Your task to perform on an android device: What does the iPhone 8 look like on eBay? Image 0: 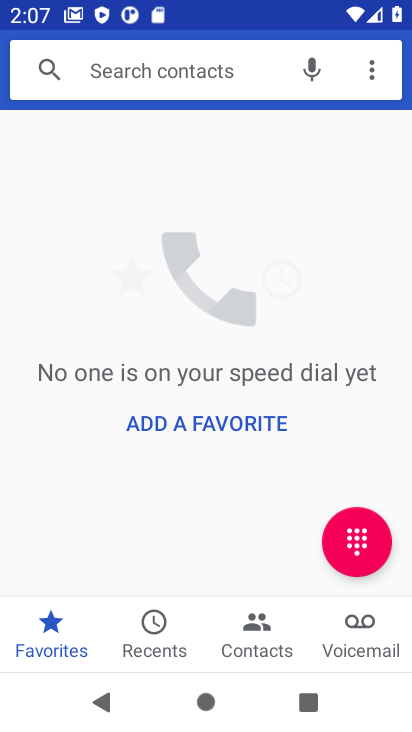
Step 0: press home button
Your task to perform on an android device: What does the iPhone 8 look like on eBay? Image 1: 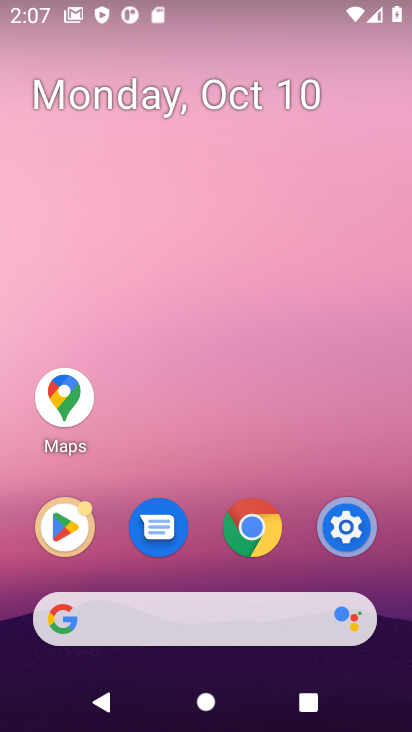
Step 1: click (228, 615)
Your task to perform on an android device: What does the iPhone 8 look like on eBay? Image 2: 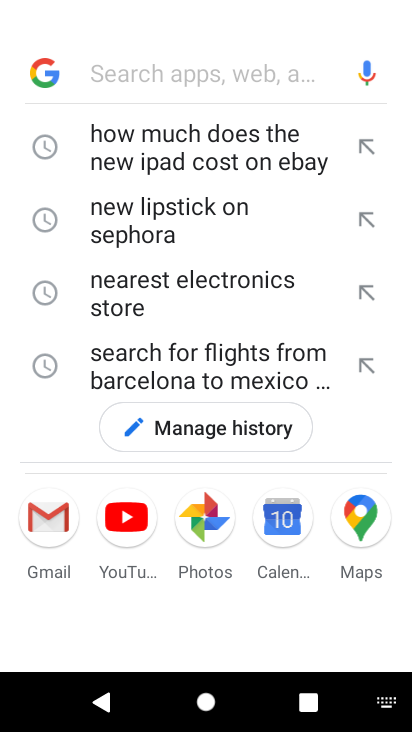
Step 2: type "What does the iPhone 8 look like on eBay"
Your task to perform on an android device: What does the iPhone 8 look like on eBay? Image 3: 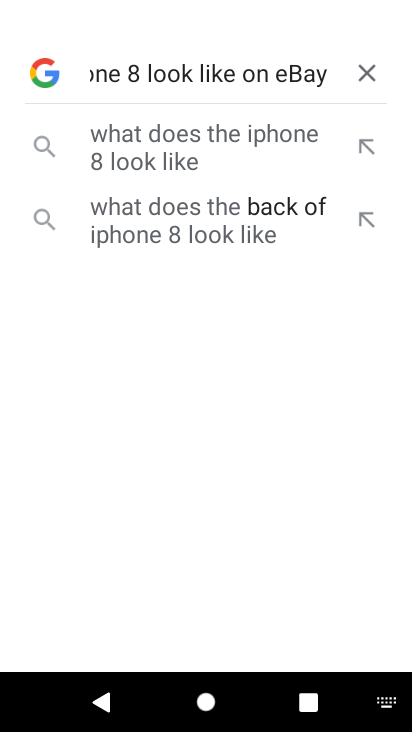
Step 3: press enter
Your task to perform on an android device: What does the iPhone 8 look like on eBay? Image 4: 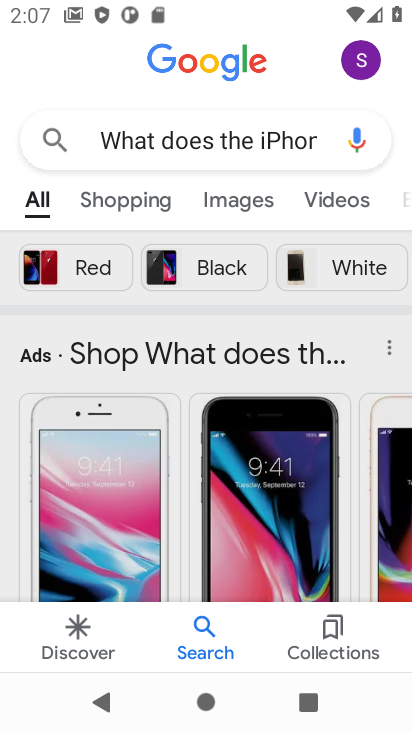
Step 4: drag from (323, 505) to (326, 351)
Your task to perform on an android device: What does the iPhone 8 look like on eBay? Image 5: 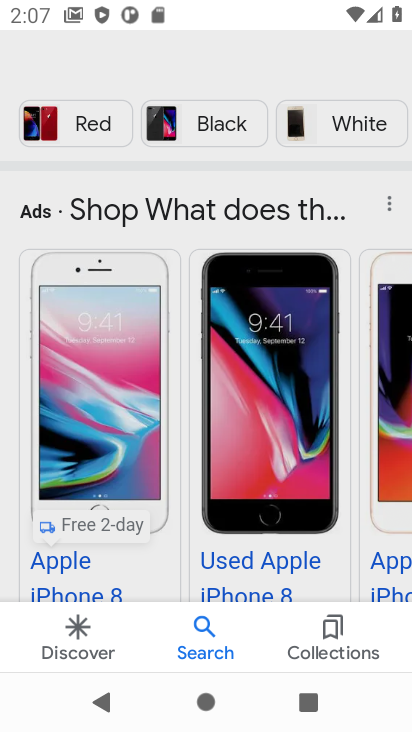
Step 5: drag from (283, 539) to (287, 293)
Your task to perform on an android device: What does the iPhone 8 look like on eBay? Image 6: 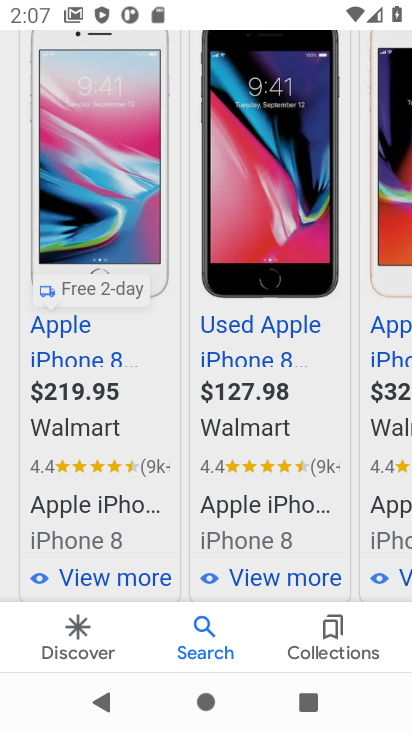
Step 6: drag from (279, 540) to (292, 218)
Your task to perform on an android device: What does the iPhone 8 look like on eBay? Image 7: 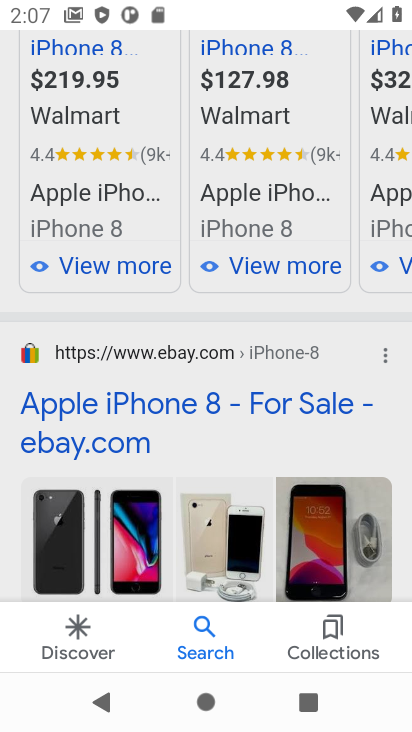
Step 7: click (281, 421)
Your task to perform on an android device: What does the iPhone 8 look like on eBay? Image 8: 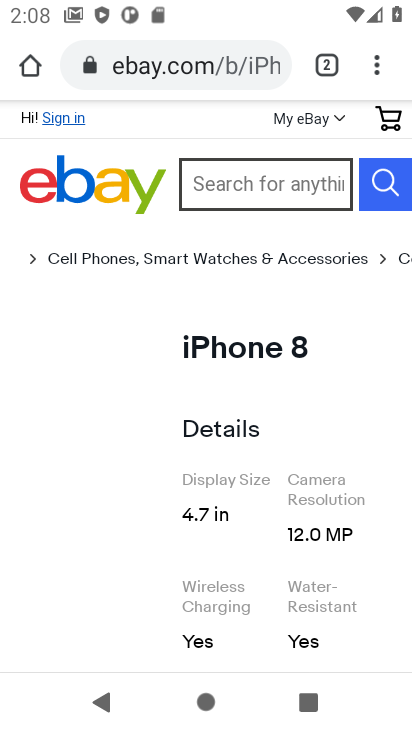
Step 8: task complete